Your task to perform on an android device: find photos in the google photos app Image 0: 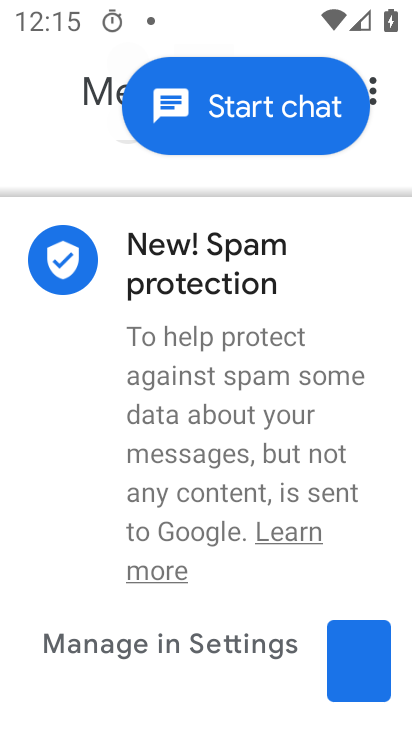
Step 0: press home button
Your task to perform on an android device: find photos in the google photos app Image 1: 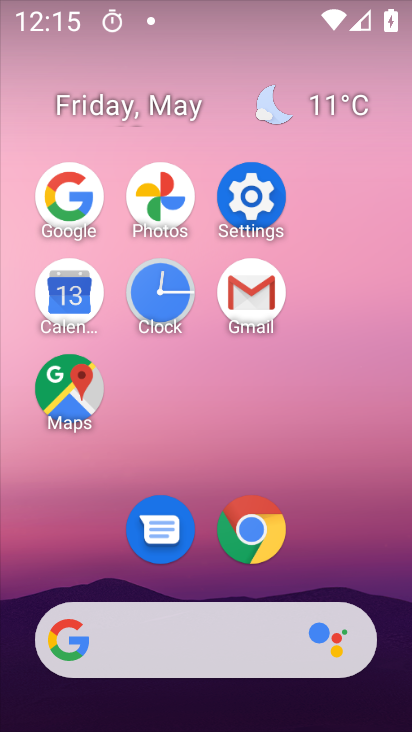
Step 1: click (175, 205)
Your task to perform on an android device: find photos in the google photos app Image 2: 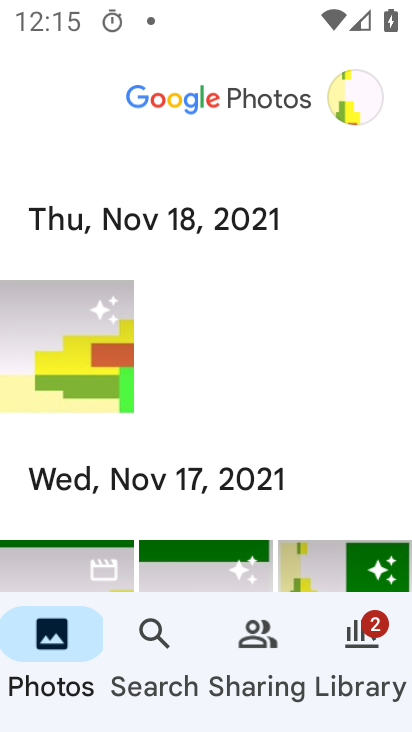
Step 2: click (116, 323)
Your task to perform on an android device: find photos in the google photos app Image 3: 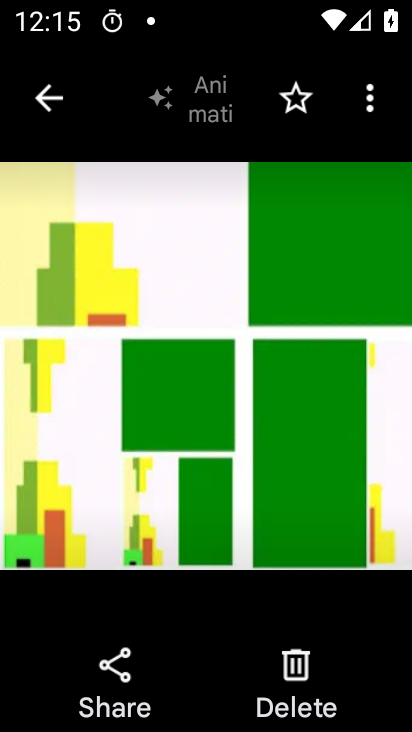
Step 3: task complete